Your task to perform on an android device: Go to network settings Image 0: 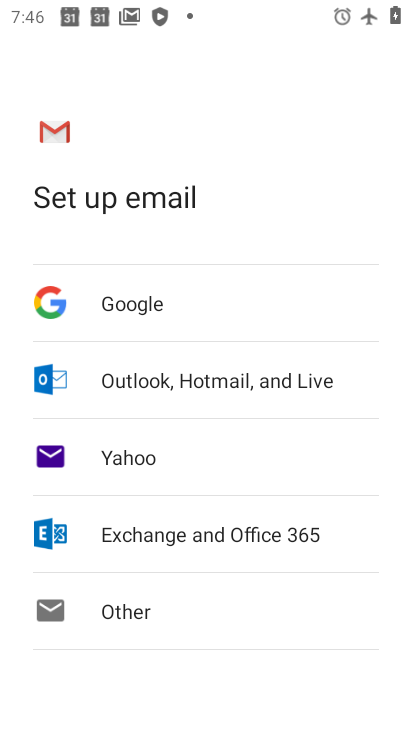
Step 0: press home button
Your task to perform on an android device: Go to network settings Image 1: 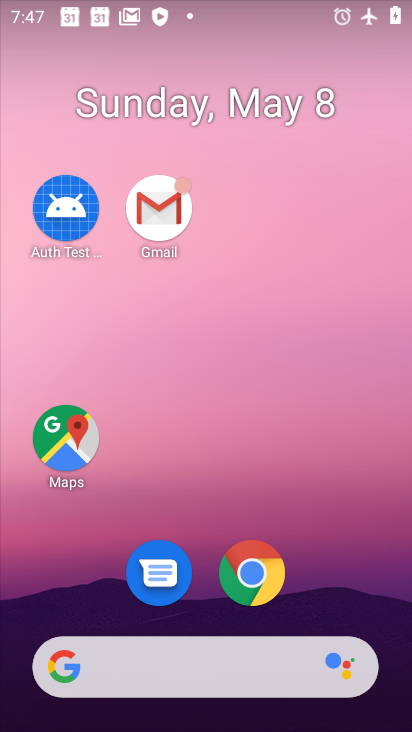
Step 1: drag from (394, 628) to (264, 0)
Your task to perform on an android device: Go to network settings Image 2: 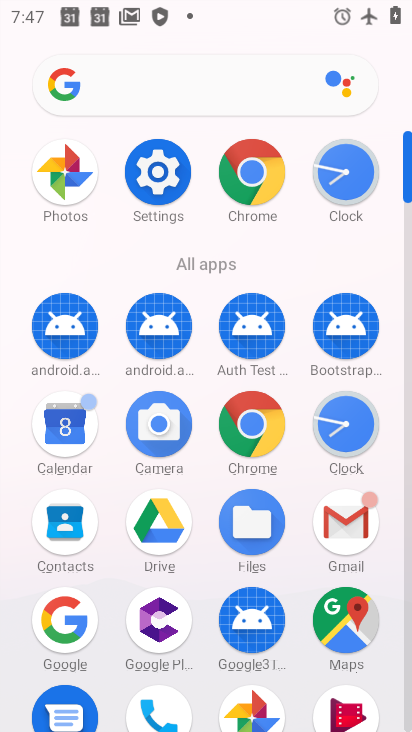
Step 2: click (152, 169)
Your task to perform on an android device: Go to network settings Image 3: 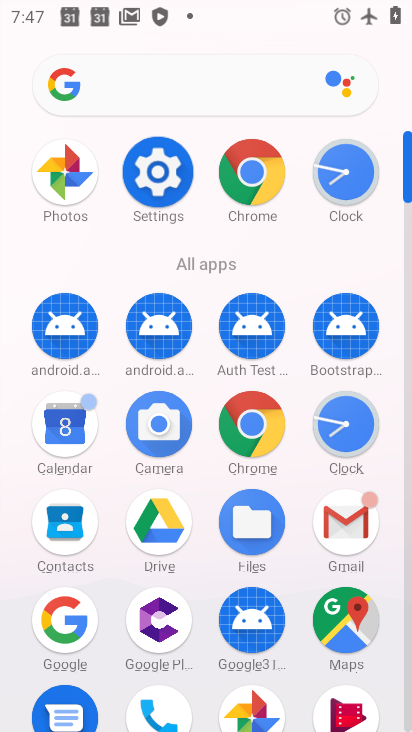
Step 3: click (152, 169)
Your task to perform on an android device: Go to network settings Image 4: 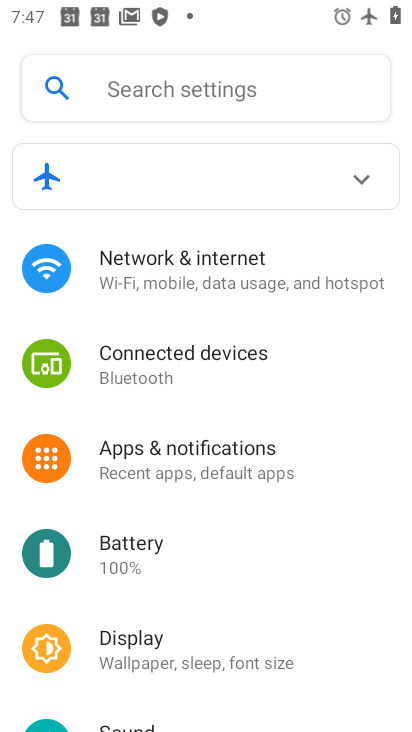
Step 4: click (184, 270)
Your task to perform on an android device: Go to network settings Image 5: 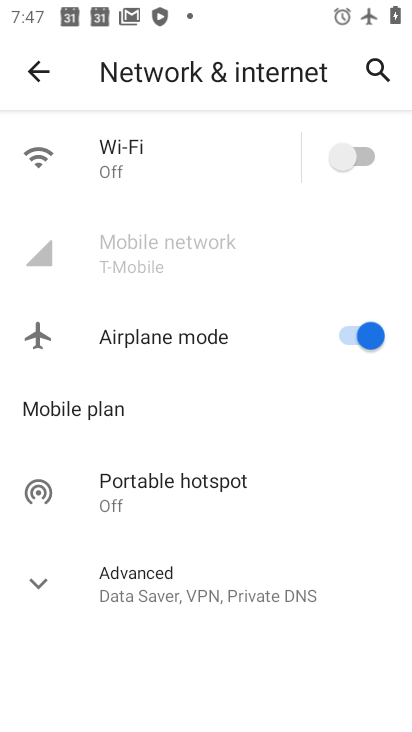
Step 5: task complete